Your task to perform on an android device: toggle translation in the chrome app Image 0: 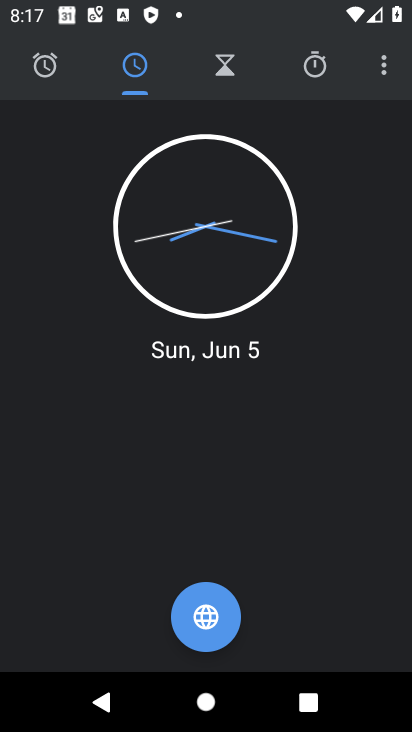
Step 0: press home button
Your task to perform on an android device: toggle translation in the chrome app Image 1: 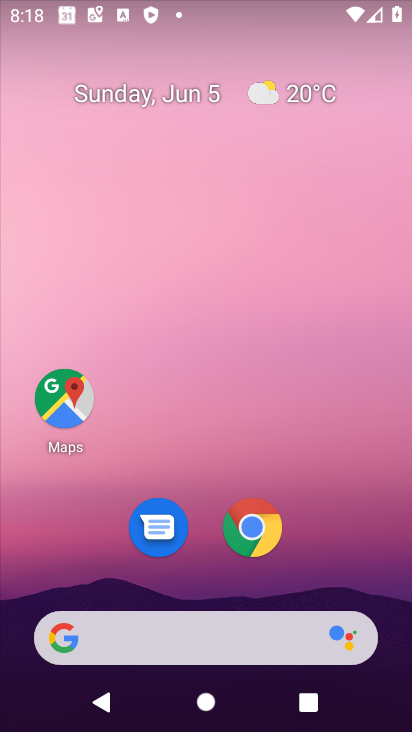
Step 1: click (244, 539)
Your task to perform on an android device: toggle translation in the chrome app Image 2: 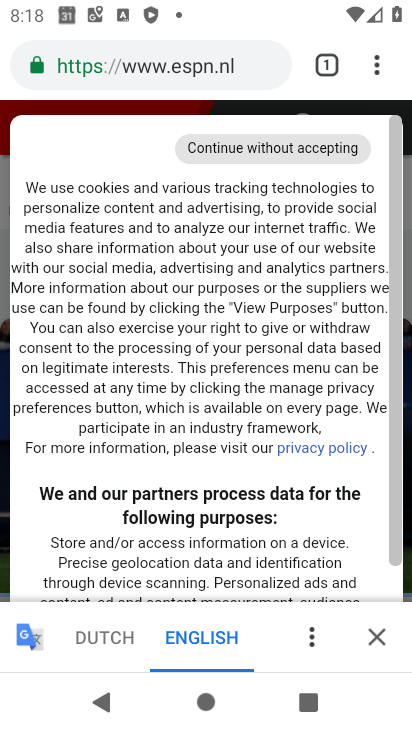
Step 2: click (381, 58)
Your task to perform on an android device: toggle translation in the chrome app Image 3: 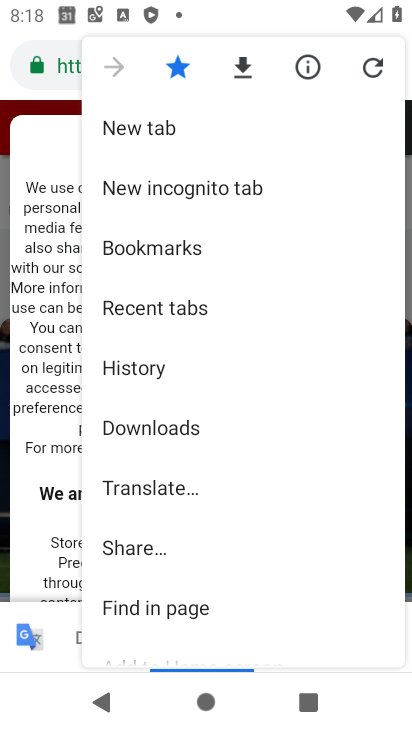
Step 3: drag from (153, 577) to (247, 179)
Your task to perform on an android device: toggle translation in the chrome app Image 4: 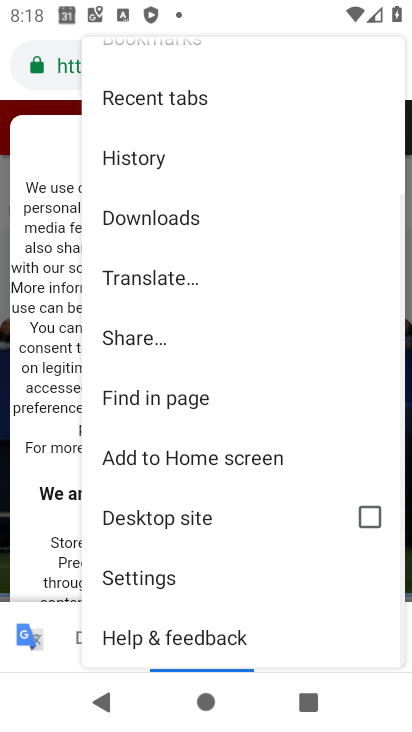
Step 4: click (159, 590)
Your task to perform on an android device: toggle translation in the chrome app Image 5: 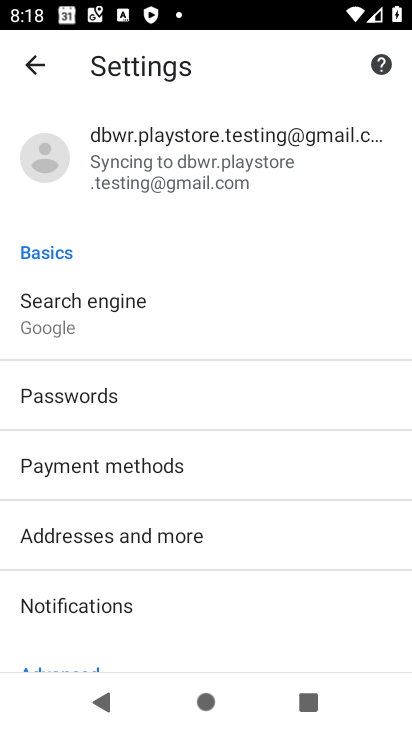
Step 5: drag from (159, 590) to (171, 247)
Your task to perform on an android device: toggle translation in the chrome app Image 6: 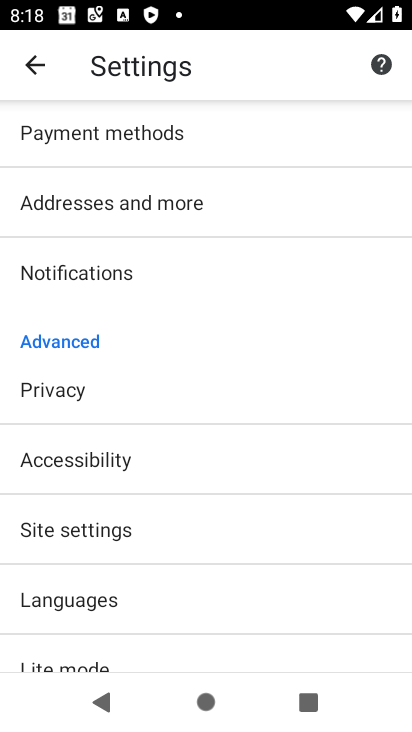
Step 6: click (105, 596)
Your task to perform on an android device: toggle translation in the chrome app Image 7: 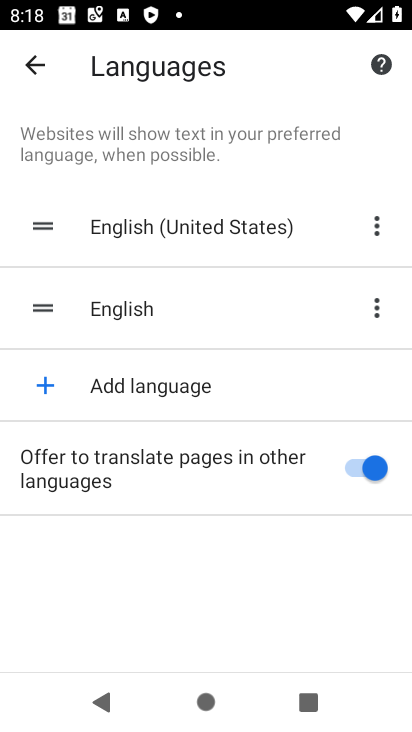
Step 7: click (350, 471)
Your task to perform on an android device: toggle translation in the chrome app Image 8: 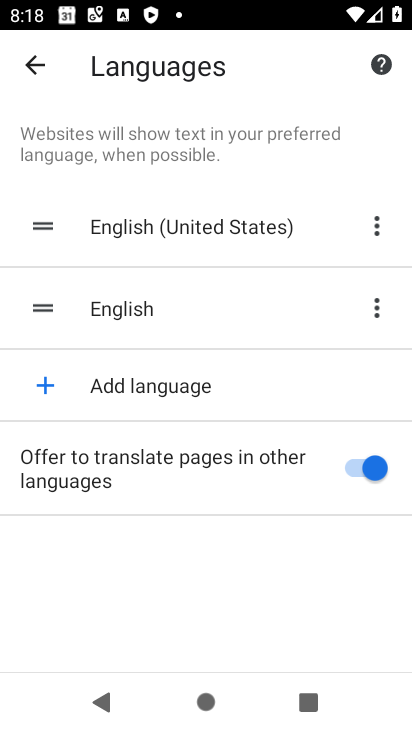
Step 8: click (350, 471)
Your task to perform on an android device: toggle translation in the chrome app Image 9: 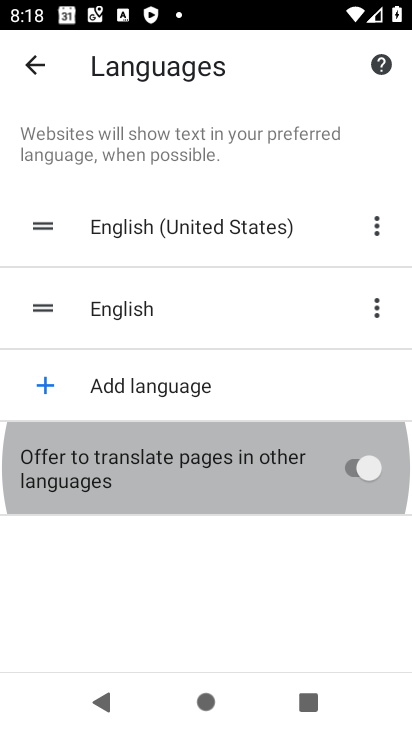
Step 9: click (350, 471)
Your task to perform on an android device: toggle translation in the chrome app Image 10: 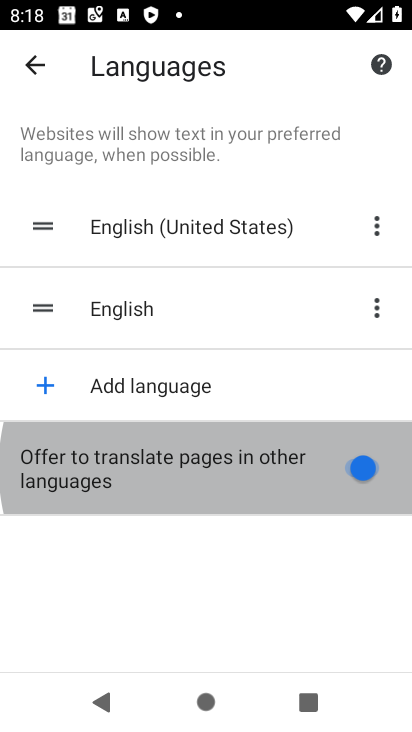
Step 10: click (350, 471)
Your task to perform on an android device: toggle translation in the chrome app Image 11: 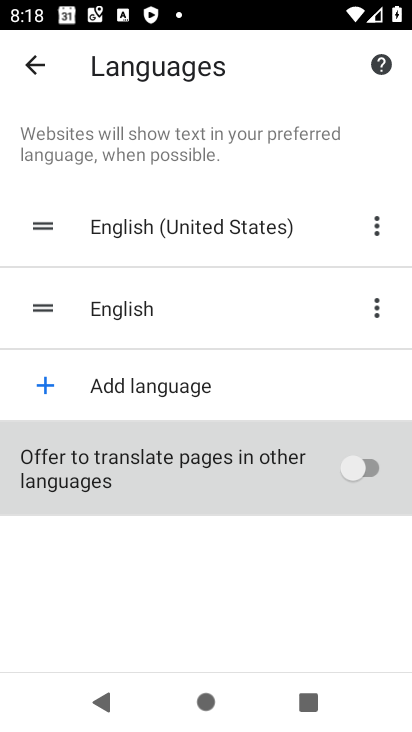
Step 11: click (350, 471)
Your task to perform on an android device: toggle translation in the chrome app Image 12: 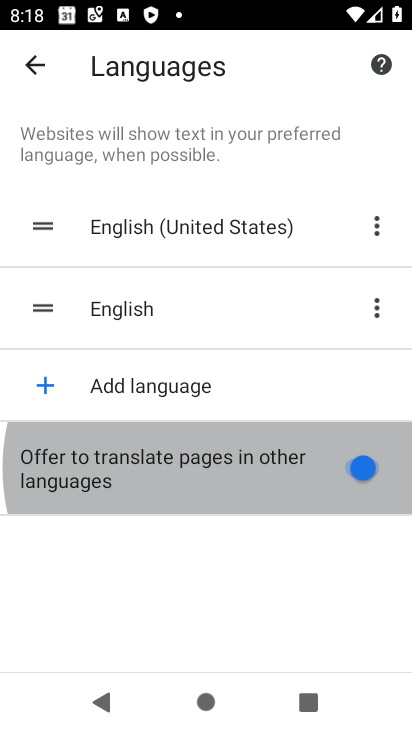
Step 12: click (350, 471)
Your task to perform on an android device: toggle translation in the chrome app Image 13: 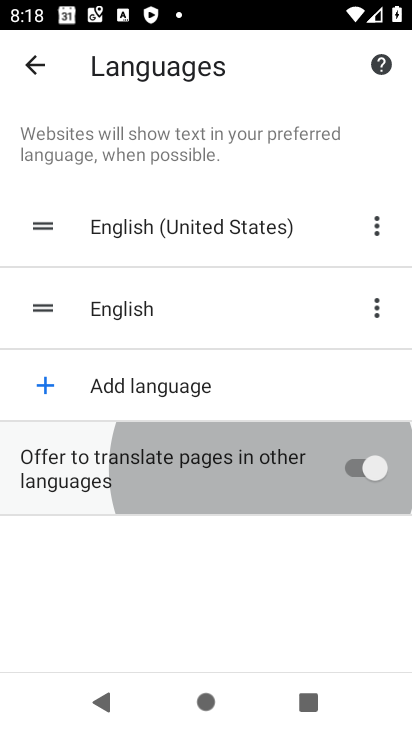
Step 13: click (350, 471)
Your task to perform on an android device: toggle translation in the chrome app Image 14: 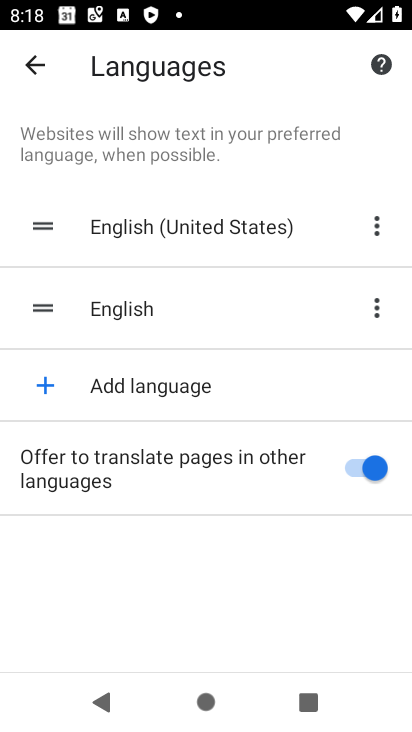
Step 14: task complete